Your task to perform on an android device: Go to accessibility settings Image 0: 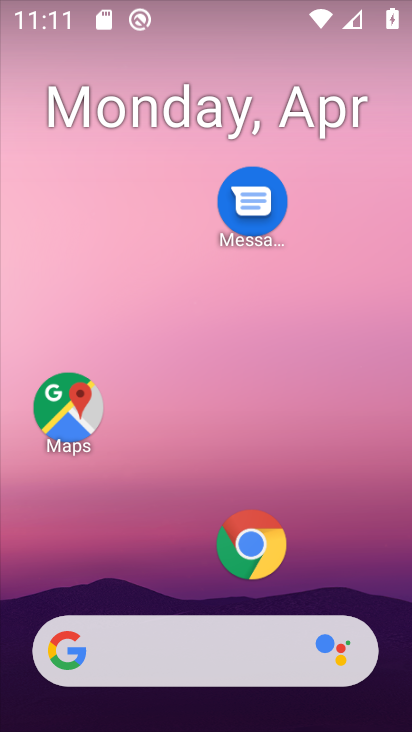
Step 0: press home button
Your task to perform on an android device: Go to accessibility settings Image 1: 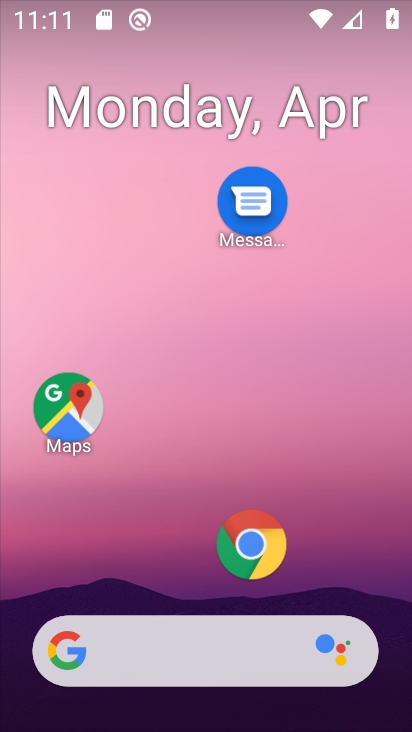
Step 1: drag from (203, 587) to (203, 92)
Your task to perform on an android device: Go to accessibility settings Image 2: 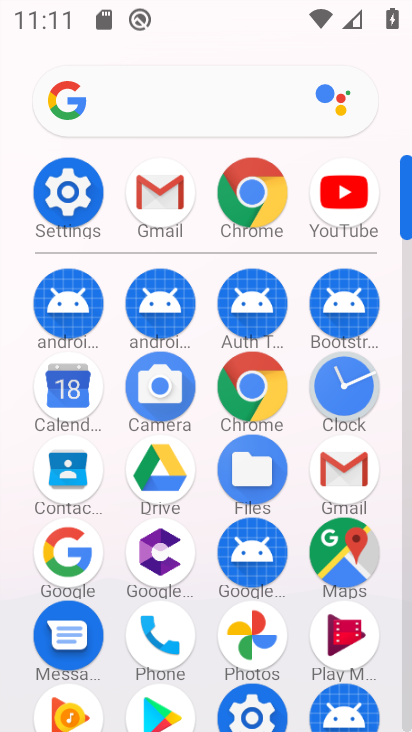
Step 2: click (249, 705)
Your task to perform on an android device: Go to accessibility settings Image 3: 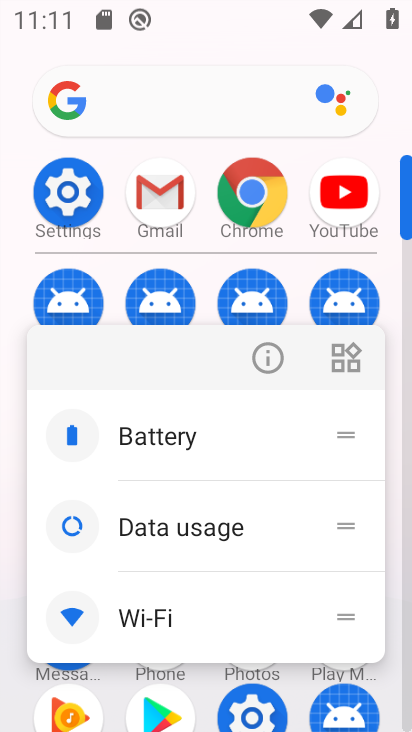
Step 3: click (248, 703)
Your task to perform on an android device: Go to accessibility settings Image 4: 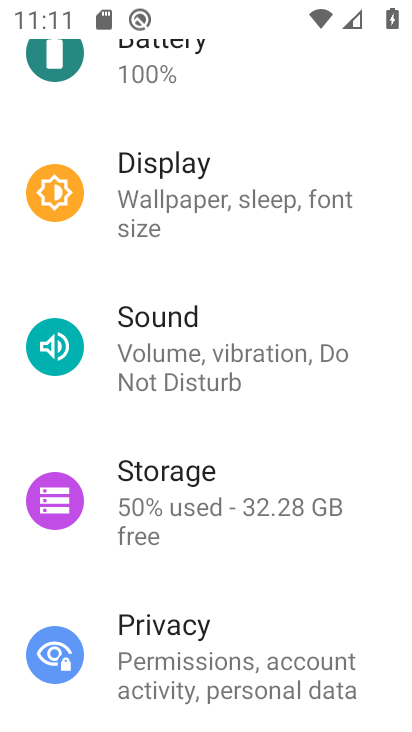
Step 4: drag from (194, 695) to (223, 102)
Your task to perform on an android device: Go to accessibility settings Image 5: 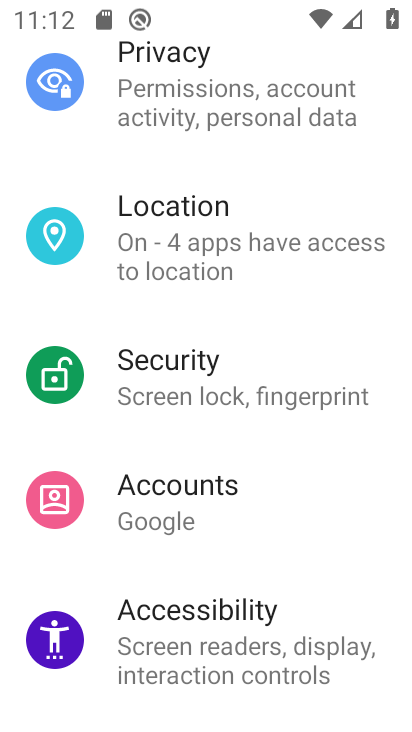
Step 5: click (192, 624)
Your task to perform on an android device: Go to accessibility settings Image 6: 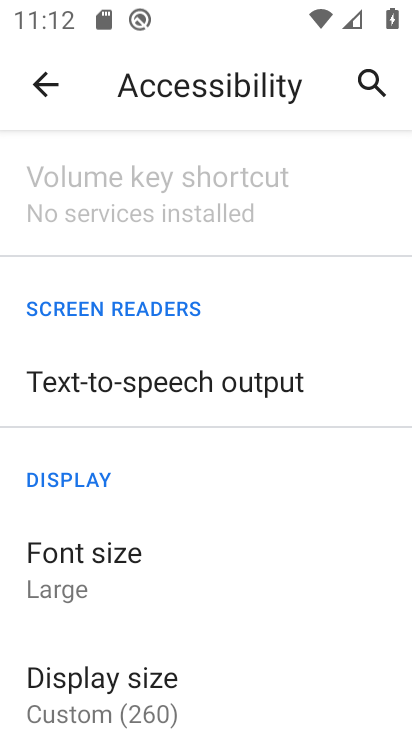
Step 6: task complete